Your task to perform on an android device: Go to eBay Image 0: 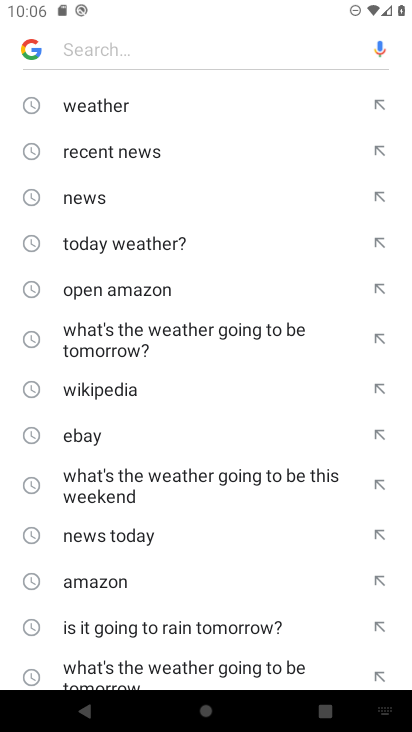
Step 0: press back button
Your task to perform on an android device: Go to eBay Image 1: 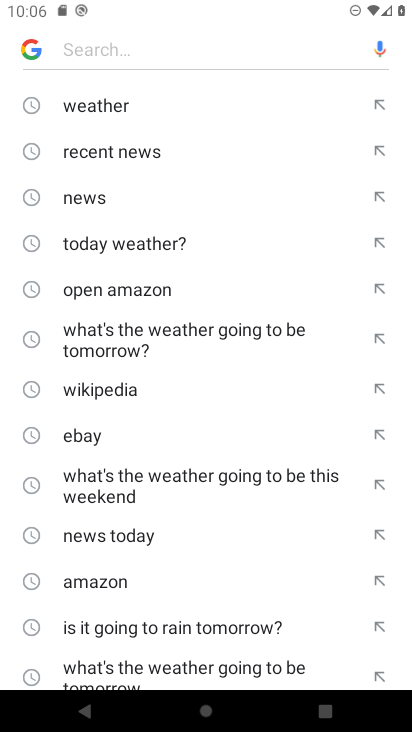
Step 1: press back button
Your task to perform on an android device: Go to eBay Image 2: 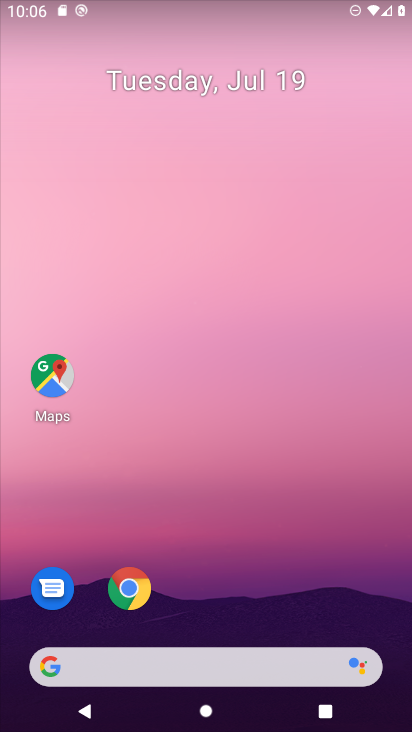
Step 2: drag from (264, 567) to (259, 110)
Your task to perform on an android device: Go to eBay Image 3: 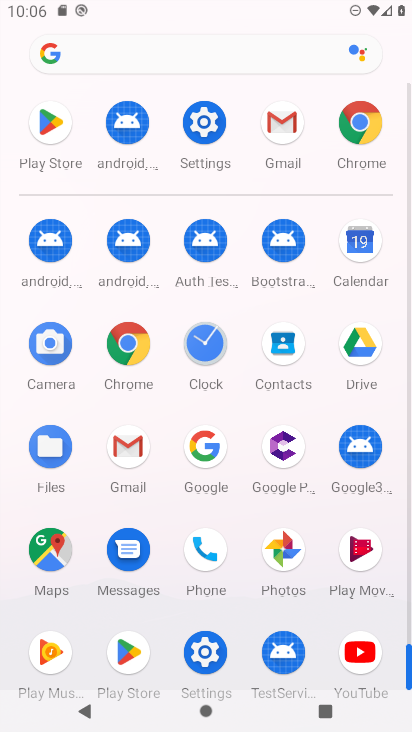
Step 3: click (375, 123)
Your task to perform on an android device: Go to eBay Image 4: 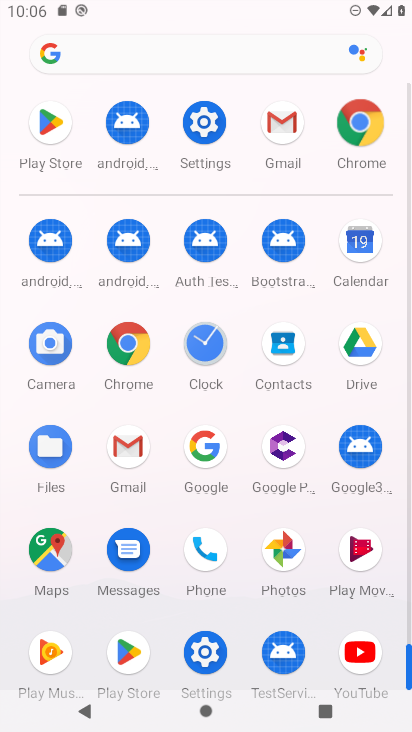
Step 4: click (375, 125)
Your task to perform on an android device: Go to eBay Image 5: 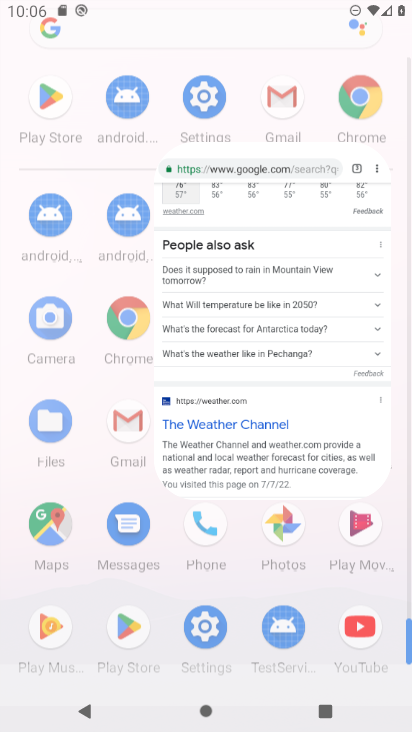
Step 5: click (376, 125)
Your task to perform on an android device: Go to eBay Image 6: 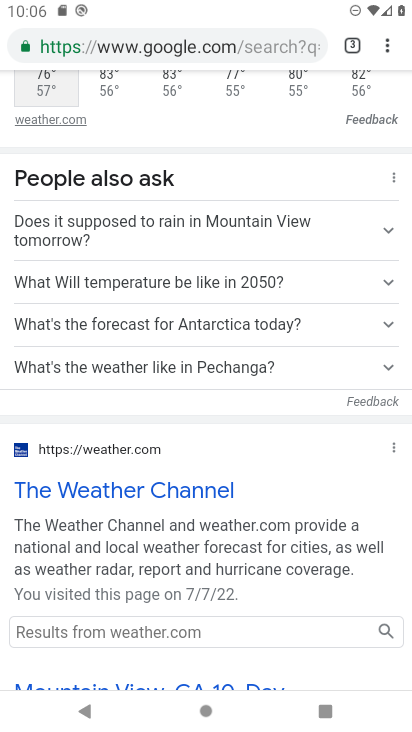
Step 6: drag from (394, 42) to (243, 94)
Your task to perform on an android device: Go to eBay Image 7: 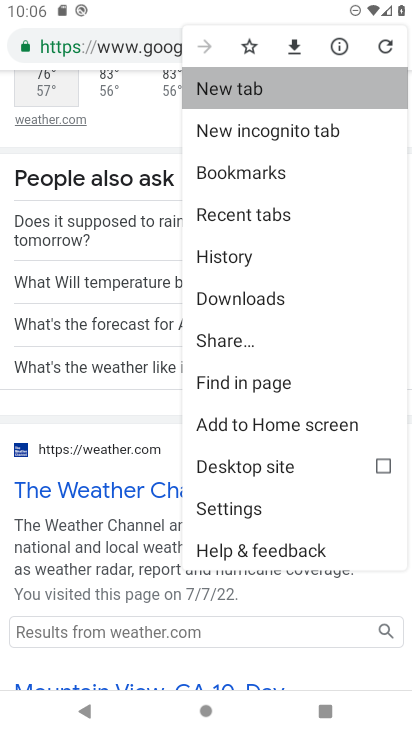
Step 7: click (245, 83)
Your task to perform on an android device: Go to eBay Image 8: 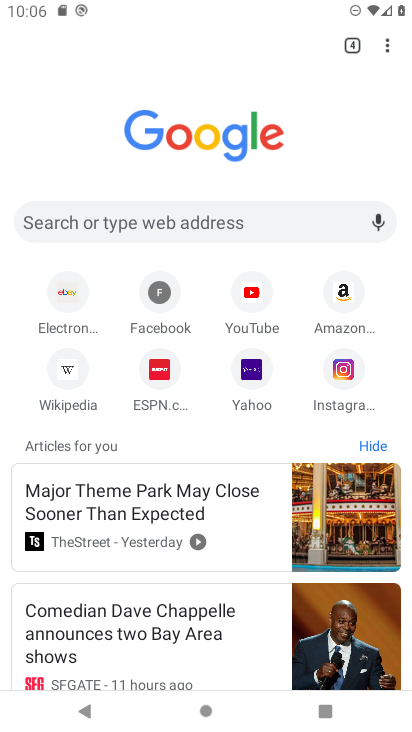
Step 8: click (79, 291)
Your task to perform on an android device: Go to eBay Image 9: 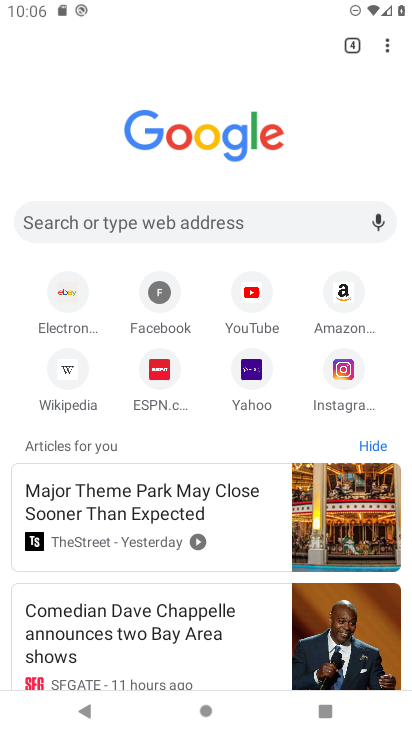
Step 9: click (77, 291)
Your task to perform on an android device: Go to eBay Image 10: 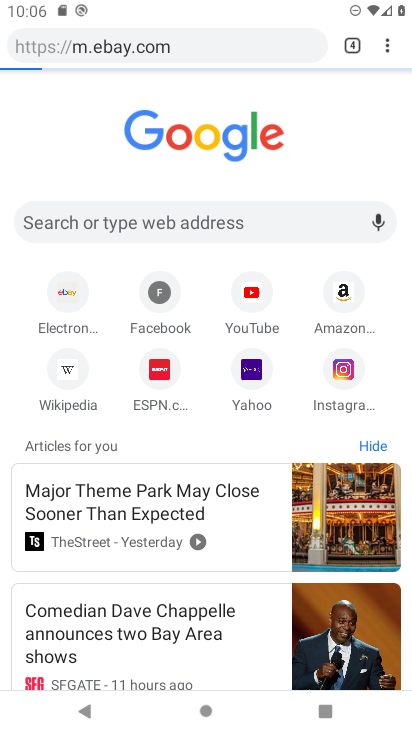
Step 10: click (77, 293)
Your task to perform on an android device: Go to eBay Image 11: 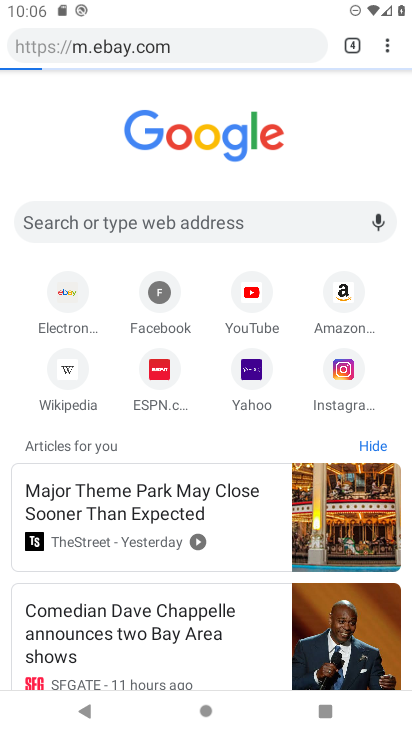
Step 11: click (79, 296)
Your task to perform on an android device: Go to eBay Image 12: 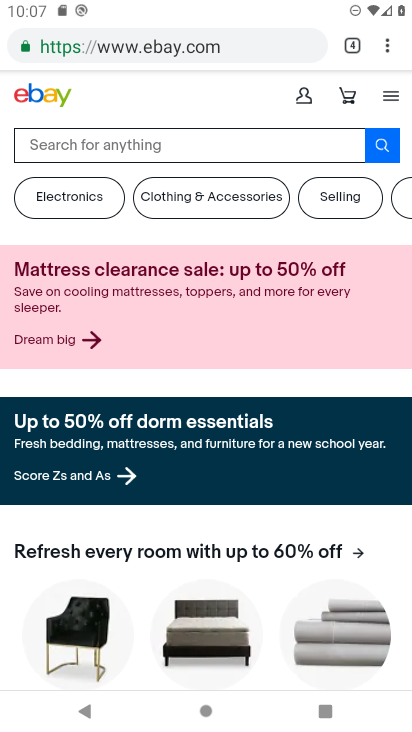
Step 12: task complete